Your task to perform on an android device: Go to Reddit.com Image 0: 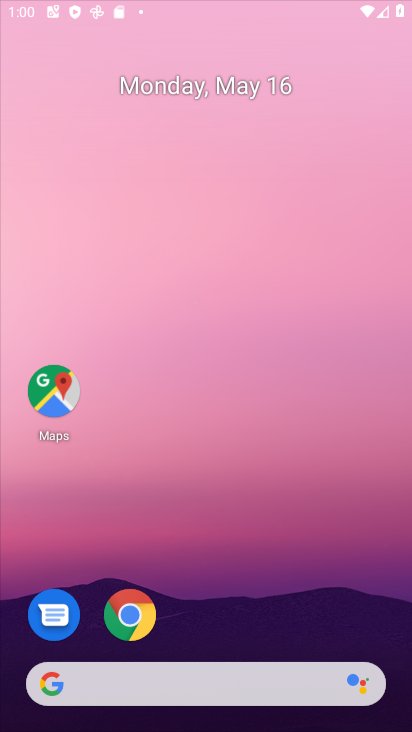
Step 0: drag from (235, 708) to (162, 16)
Your task to perform on an android device: Go to Reddit.com Image 1: 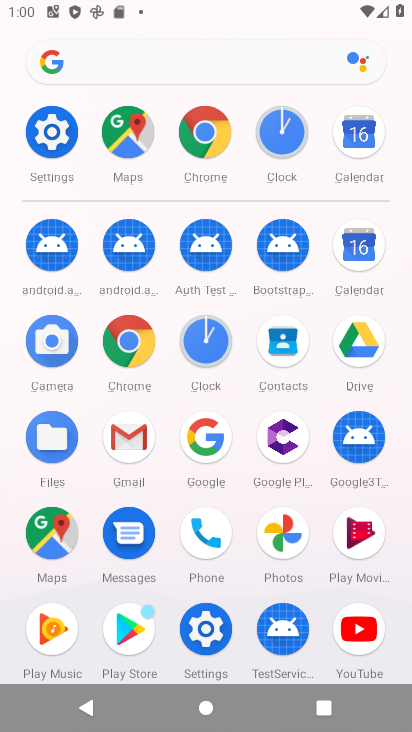
Step 1: click (130, 345)
Your task to perform on an android device: Go to Reddit.com Image 2: 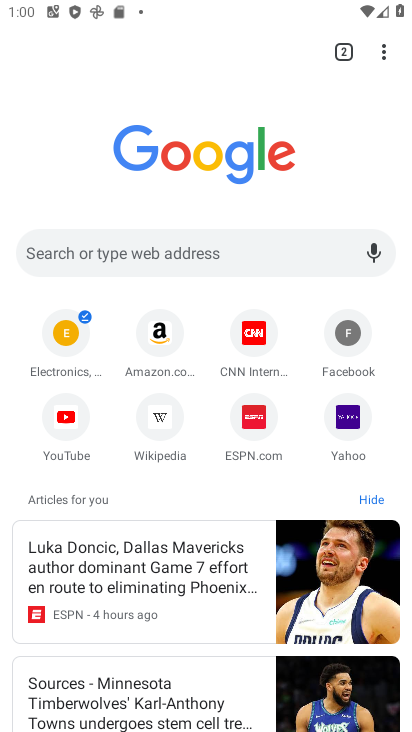
Step 2: click (168, 423)
Your task to perform on an android device: Go to Reddit.com Image 3: 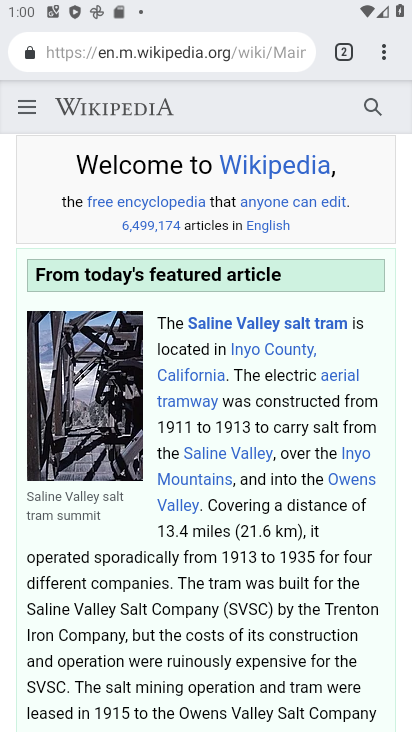
Step 3: task complete